Your task to perform on an android device: open a bookmark in the chrome app Image 0: 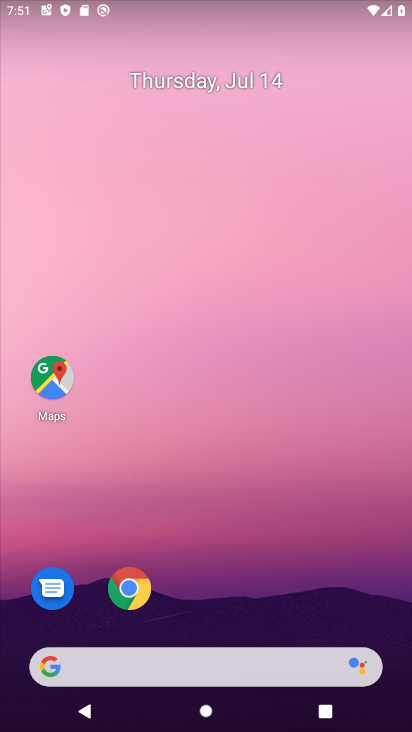
Step 0: drag from (369, 624) to (185, 50)
Your task to perform on an android device: open a bookmark in the chrome app Image 1: 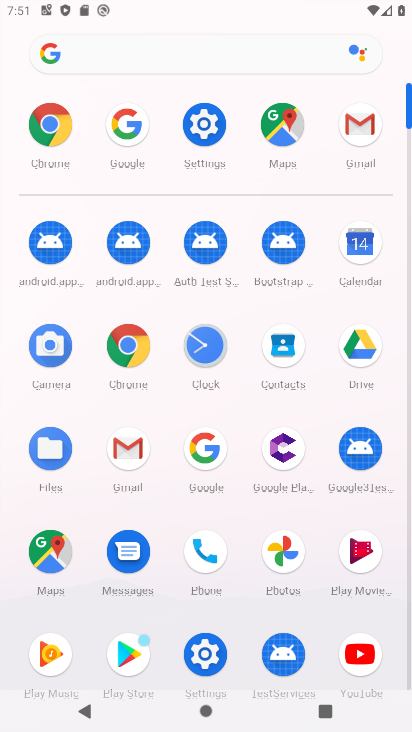
Step 1: click (52, 112)
Your task to perform on an android device: open a bookmark in the chrome app Image 2: 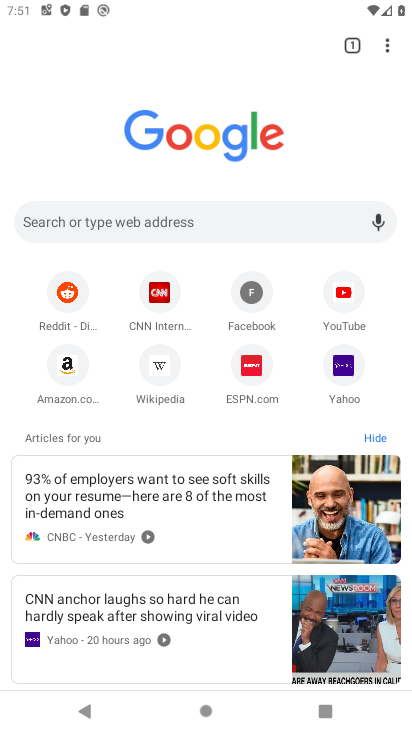
Step 2: click (388, 41)
Your task to perform on an android device: open a bookmark in the chrome app Image 3: 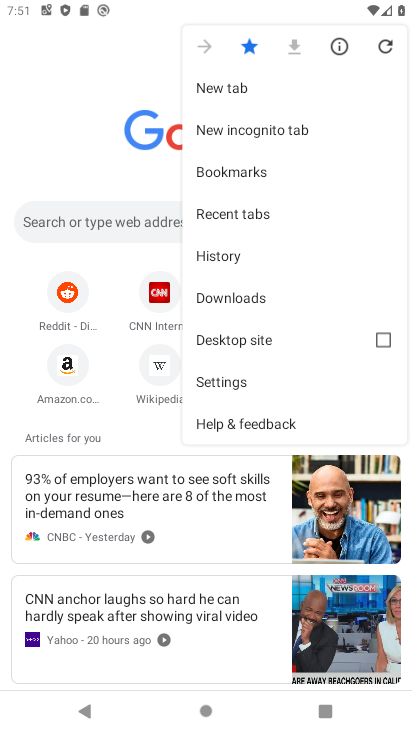
Step 3: click (260, 164)
Your task to perform on an android device: open a bookmark in the chrome app Image 4: 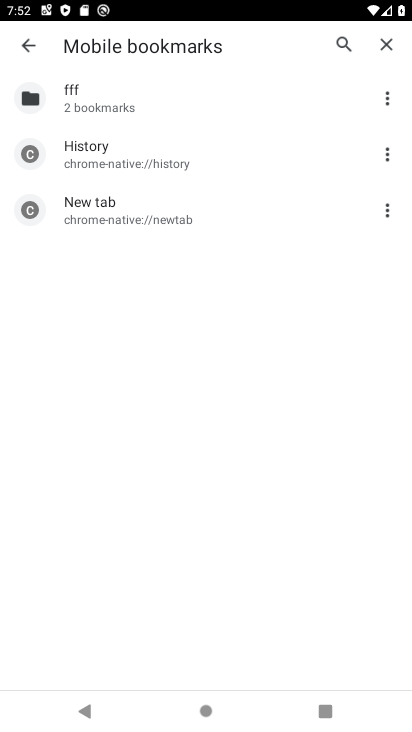
Step 4: task complete